Your task to perform on an android device: turn off smart reply in the gmail app Image 0: 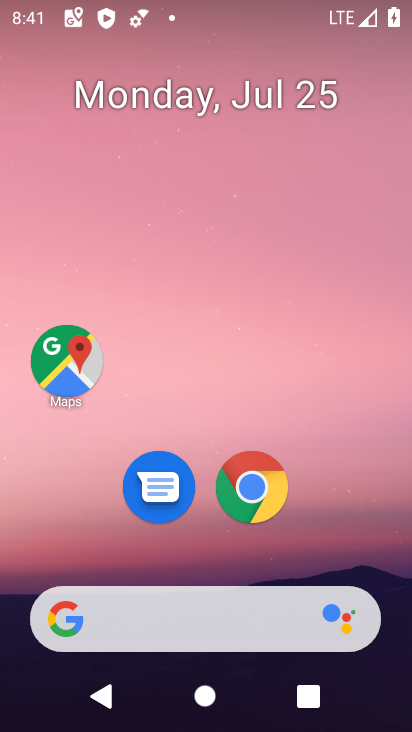
Step 0: drag from (143, 549) to (235, 36)
Your task to perform on an android device: turn off smart reply in the gmail app Image 1: 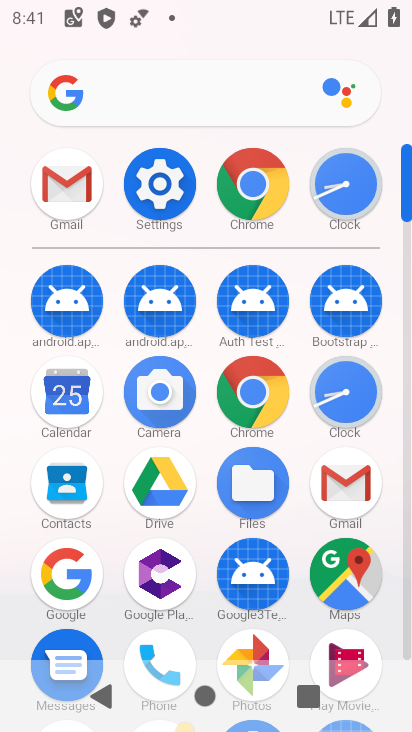
Step 1: click (61, 196)
Your task to perform on an android device: turn off smart reply in the gmail app Image 2: 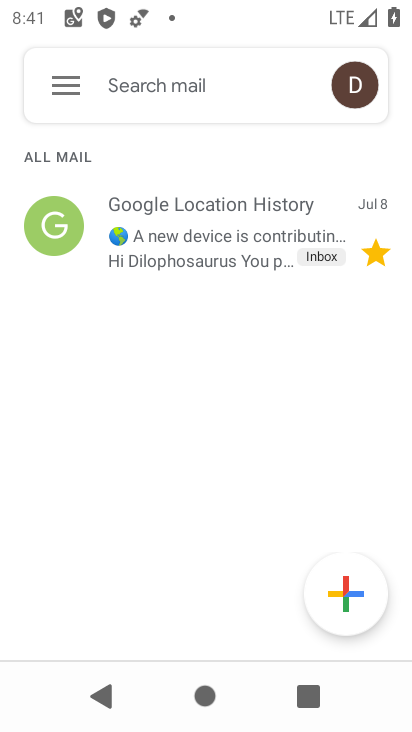
Step 2: click (70, 80)
Your task to perform on an android device: turn off smart reply in the gmail app Image 3: 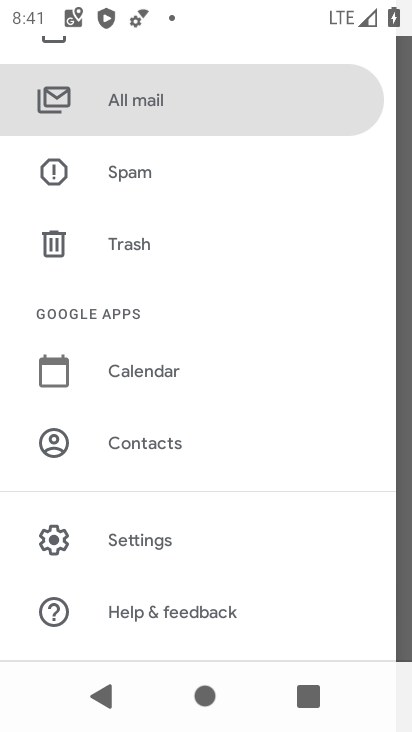
Step 3: click (143, 527)
Your task to perform on an android device: turn off smart reply in the gmail app Image 4: 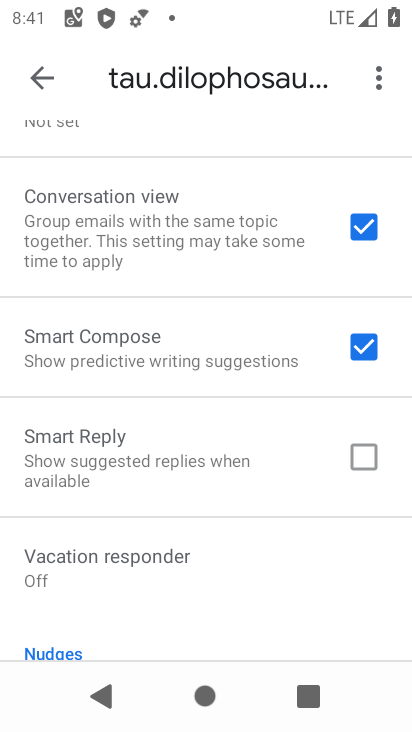
Step 4: task complete